Your task to perform on an android device: Open the map Image 0: 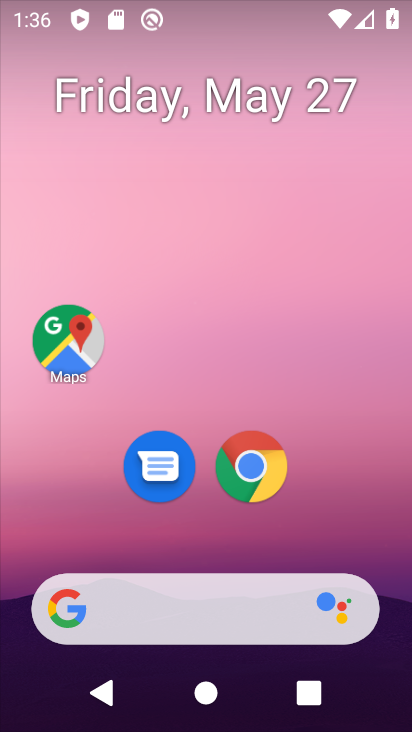
Step 0: click (84, 337)
Your task to perform on an android device: Open the map Image 1: 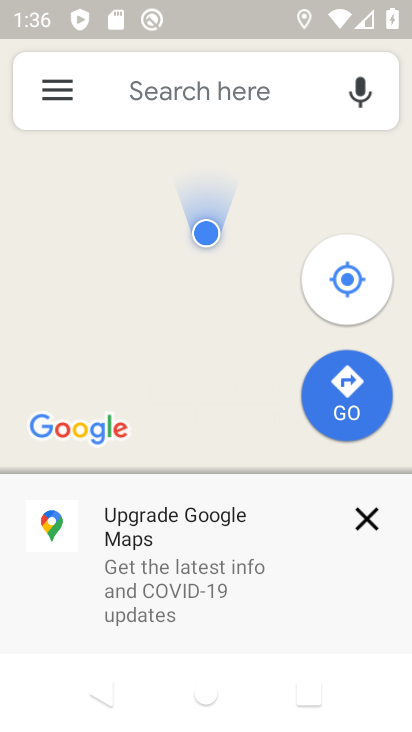
Step 1: task complete